Your task to perform on an android device: toggle javascript in the chrome app Image 0: 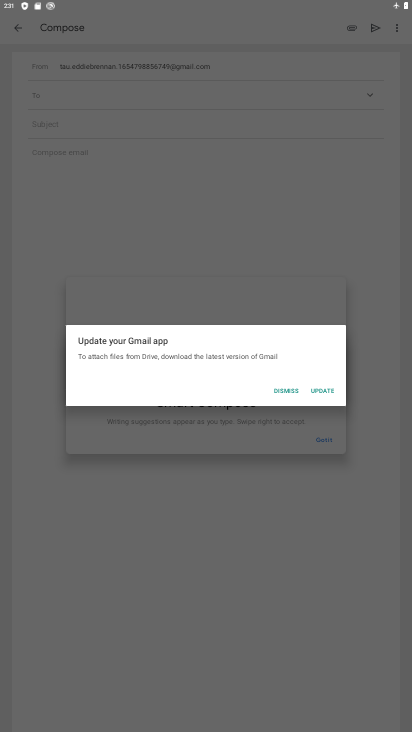
Step 0: press home button
Your task to perform on an android device: toggle javascript in the chrome app Image 1: 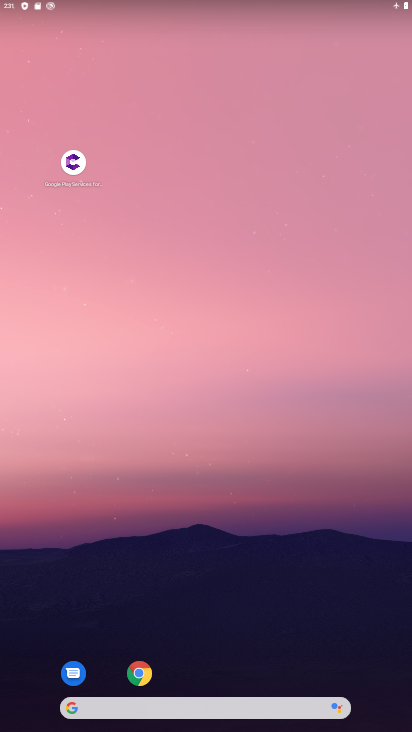
Step 1: click (148, 679)
Your task to perform on an android device: toggle javascript in the chrome app Image 2: 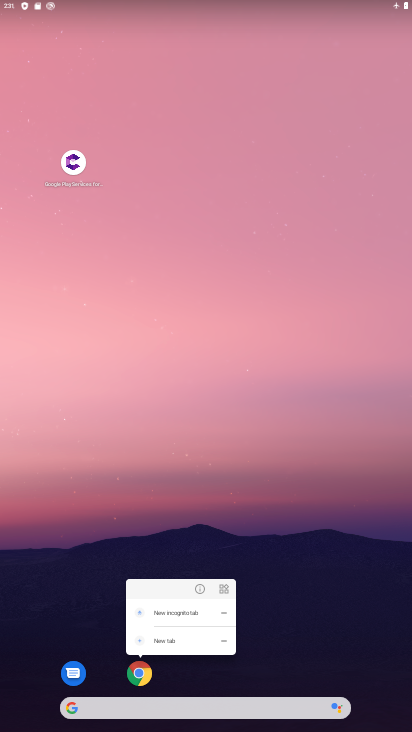
Step 2: click (147, 677)
Your task to perform on an android device: toggle javascript in the chrome app Image 3: 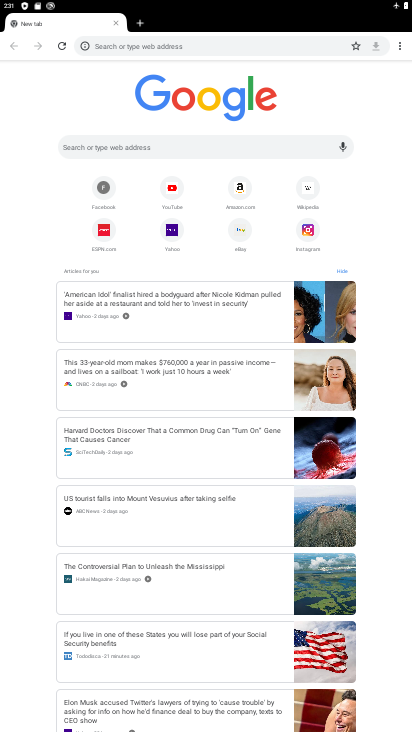
Step 3: drag from (396, 36) to (334, 221)
Your task to perform on an android device: toggle javascript in the chrome app Image 4: 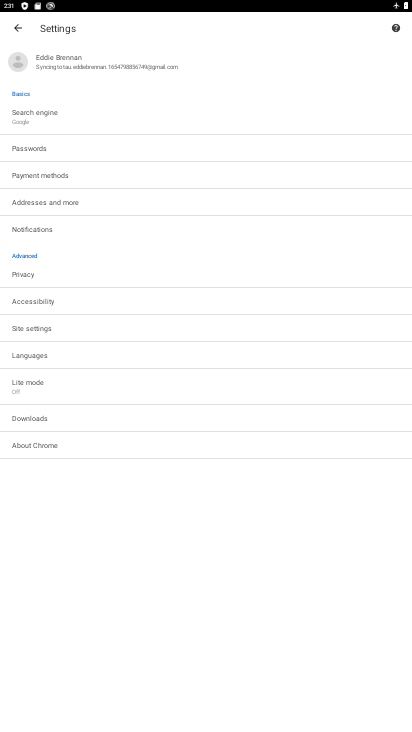
Step 4: click (78, 330)
Your task to perform on an android device: toggle javascript in the chrome app Image 5: 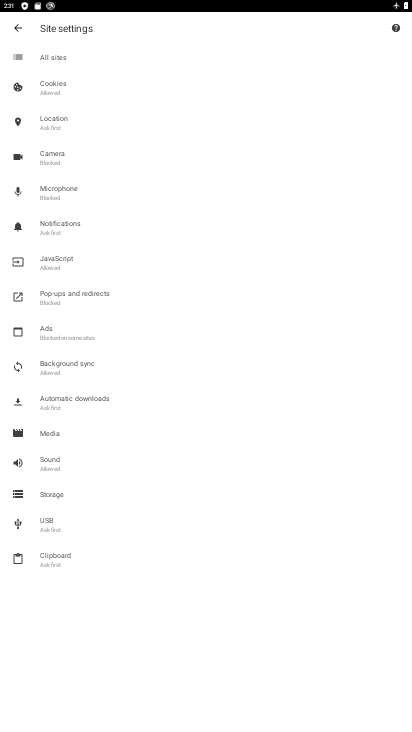
Step 5: click (103, 267)
Your task to perform on an android device: toggle javascript in the chrome app Image 6: 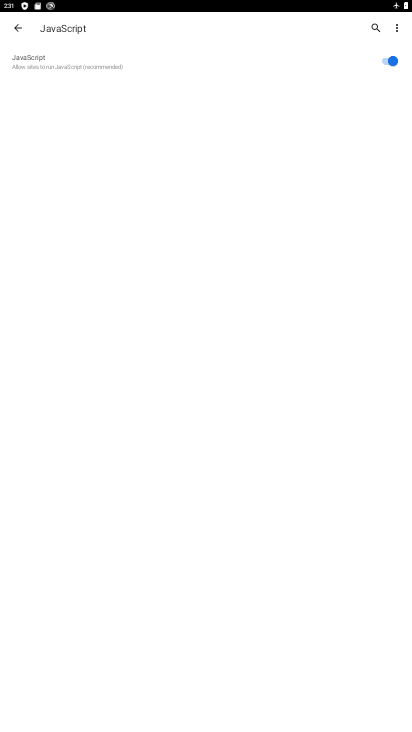
Step 6: click (386, 63)
Your task to perform on an android device: toggle javascript in the chrome app Image 7: 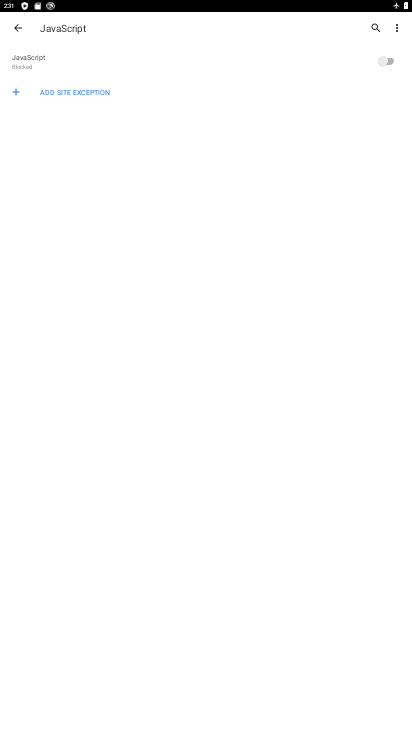
Step 7: task complete